Your task to perform on an android device: turn off picture-in-picture Image 0: 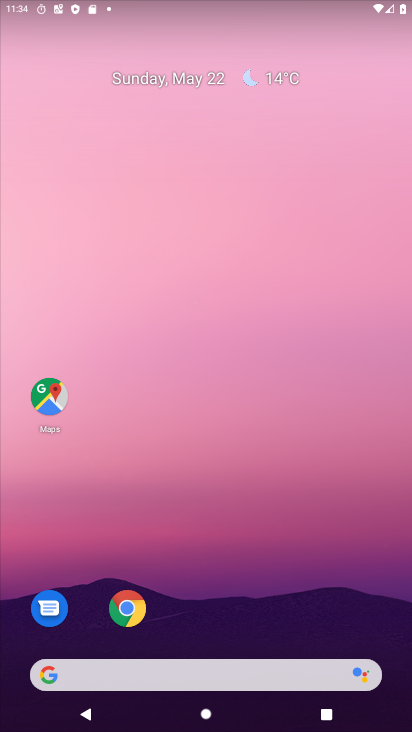
Step 0: click (131, 613)
Your task to perform on an android device: turn off picture-in-picture Image 1: 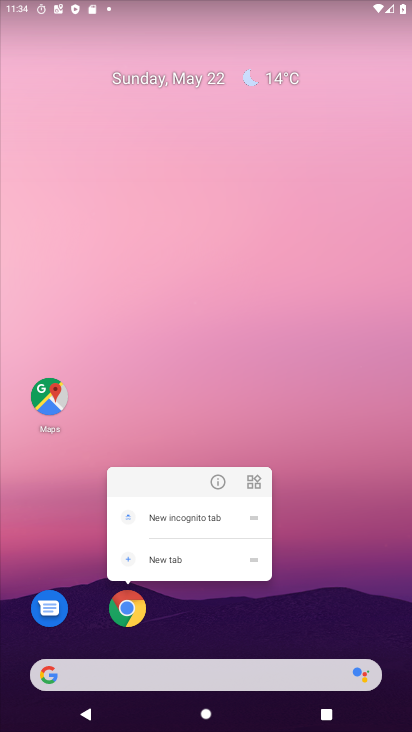
Step 1: click (218, 481)
Your task to perform on an android device: turn off picture-in-picture Image 2: 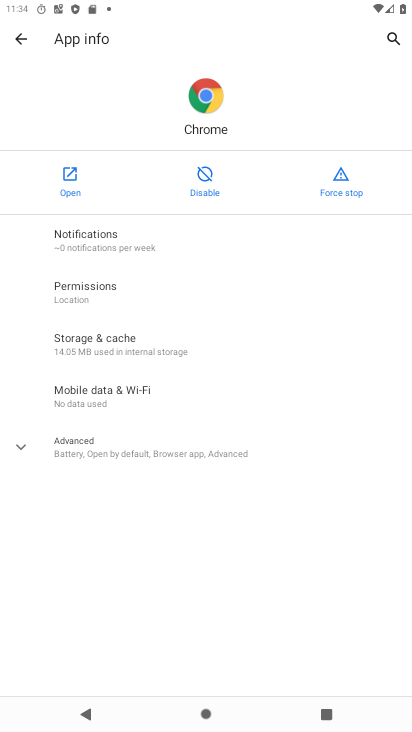
Step 2: click (221, 438)
Your task to perform on an android device: turn off picture-in-picture Image 3: 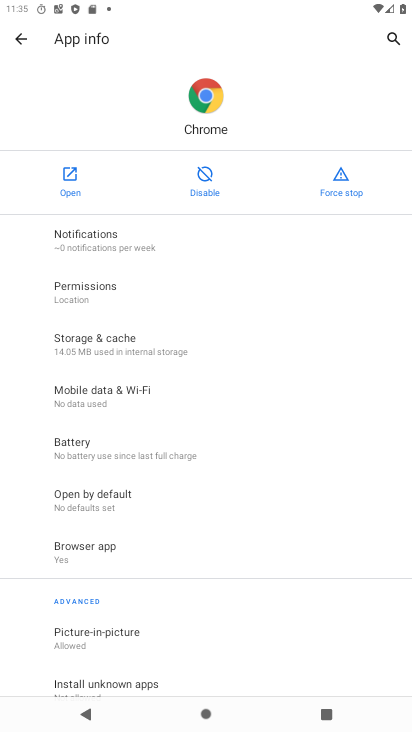
Step 3: click (217, 647)
Your task to perform on an android device: turn off picture-in-picture Image 4: 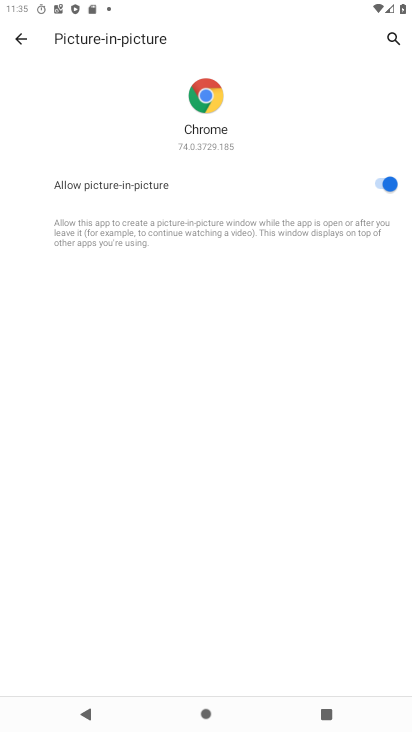
Step 4: click (373, 179)
Your task to perform on an android device: turn off picture-in-picture Image 5: 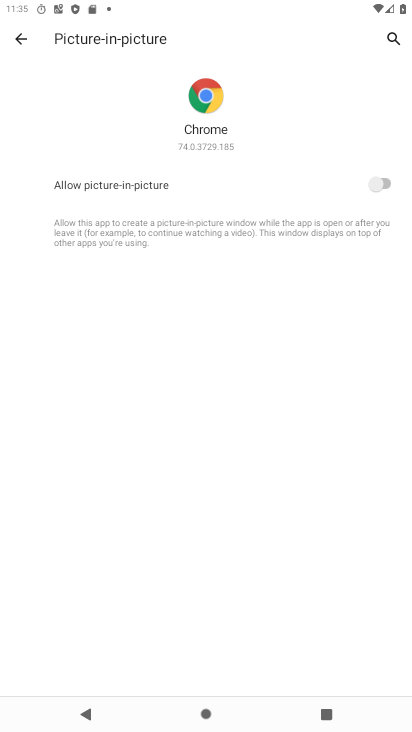
Step 5: task complete